Your task to perform on an android device: add a contact in the contacts app Image 0: 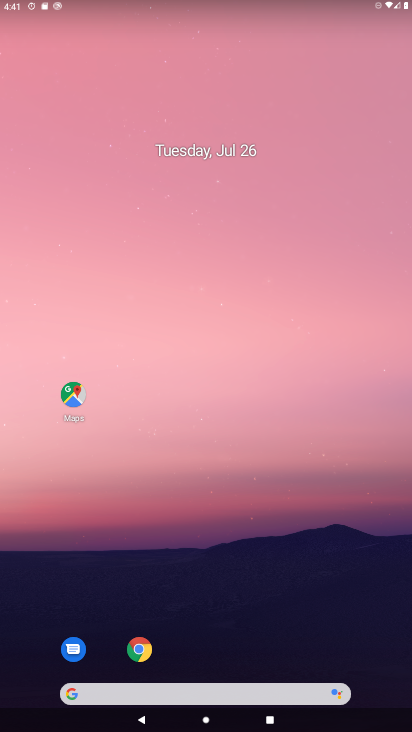
Step 0: drag from (369, 656) to (207, 0)
Your task to perform on an android device: add a contact in the contacts app Image 1: 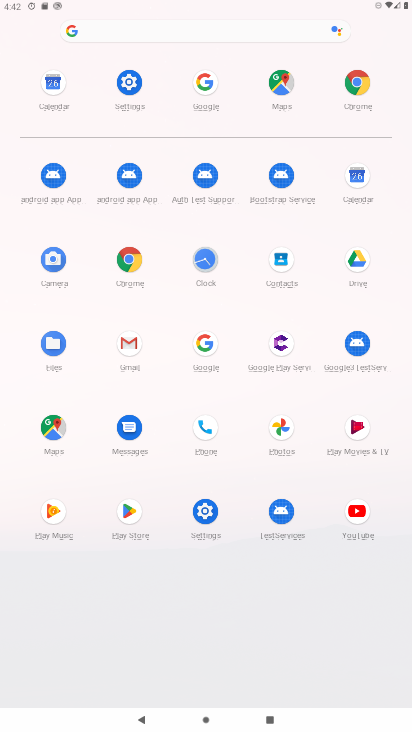
Step 1: click (281, 262)
Your task to perform on an android device: add a contact in the contacts app Image 2: 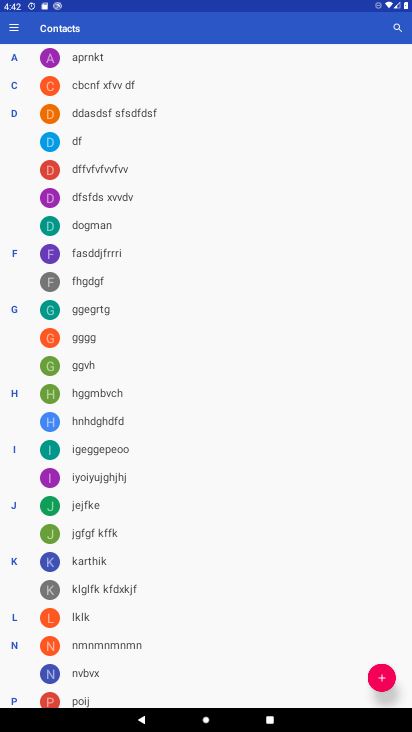
Step 2: click (382, 672)
Your task to perform on an android device: add a contact in the contacts app Image 3: 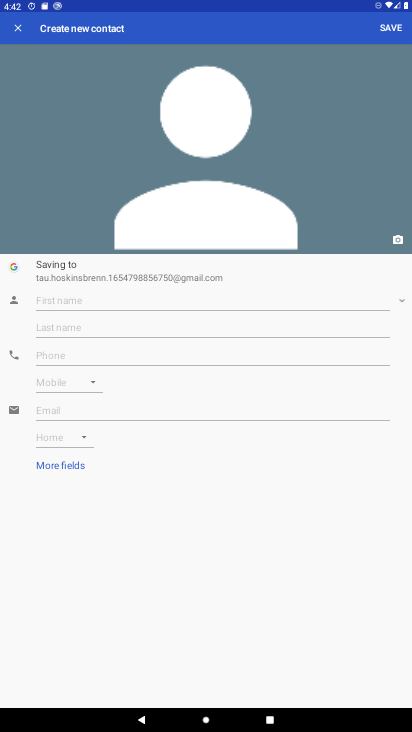
Step 3: click (142, 298)
Your task to perform on an android device: add a contact in the contacts app Image 4: 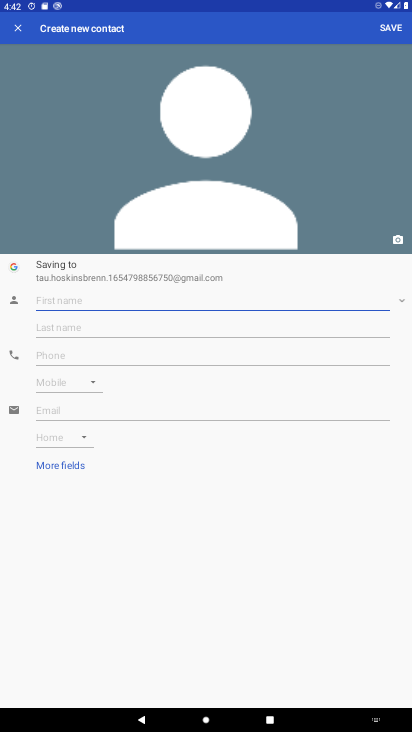
Step 4: type "girish"
Your task to perform on an android device: add a contact in the contacts app Image 5: 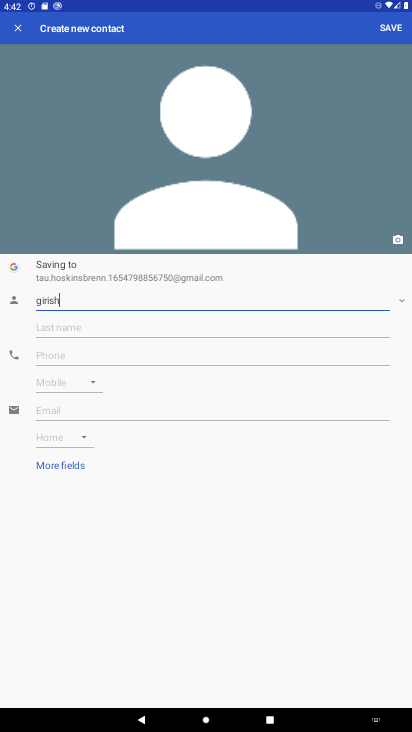
Step 5: click (381, 25)
Your task to perform on an android device: add a contact in the contacts app Image 6: 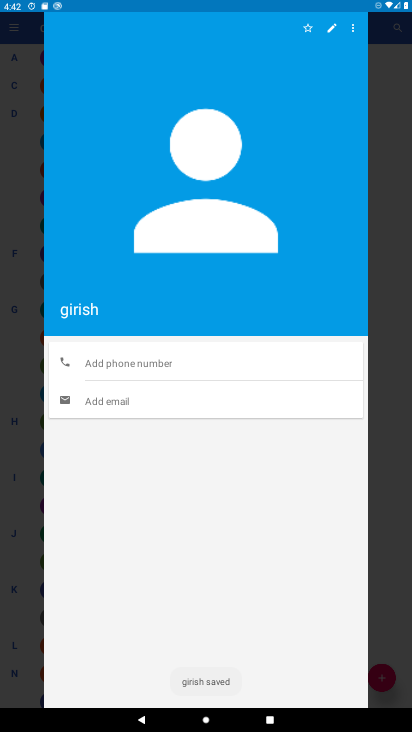
Step 6: task complete